Your task to perform on an android device: What's the weather today? Image 0: 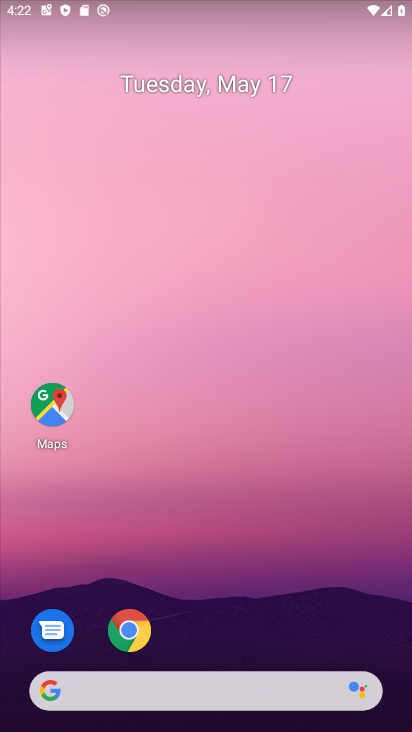
Step 0: drag from (216, 717) to (215, 41)
Your task to perform on an android device: What's the weather today? Image 1: 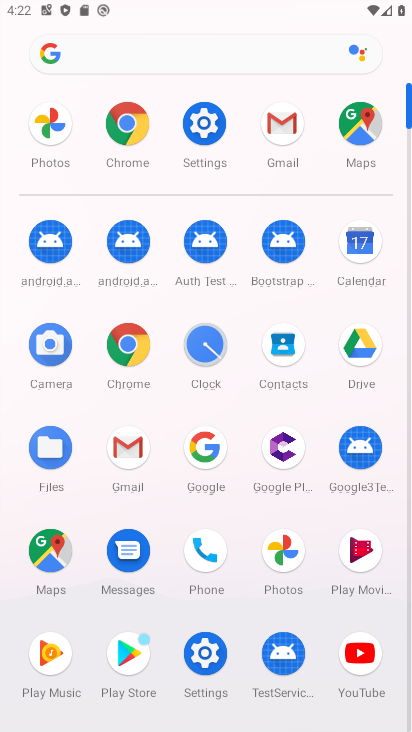
Step 1: click (202, 446)
Your task to perform on an android device: What's the weather today? Image 2: 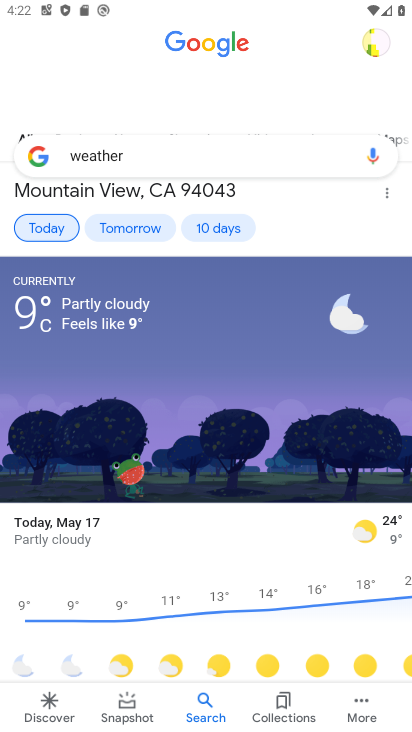
Step 2: task complete